Your task to perform on an android device: turn off airplane mode Image 0: 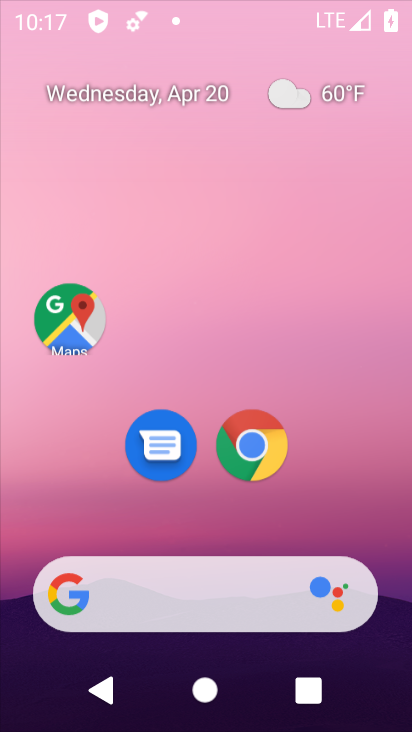
Step 0: click (219, 0)
Your task to perform on an android device: turn off airplane mode Image 1: 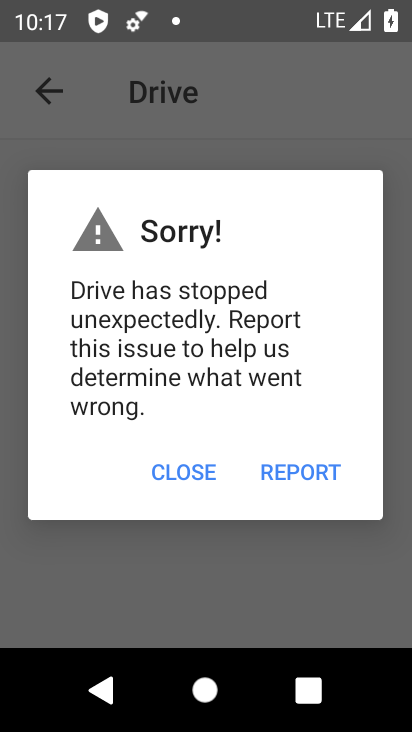
Step 1: press back button
Your task to perform on an android device: turn off airplane mode Image 2: 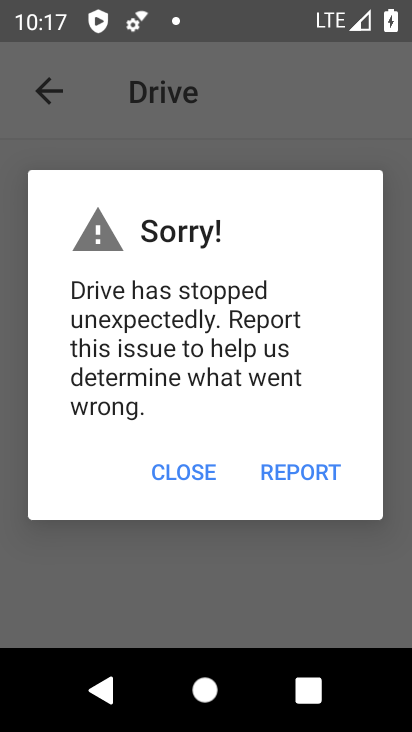
Step 2: press home button
Your task to perform on an android device: turn off airplane mode Image 3: 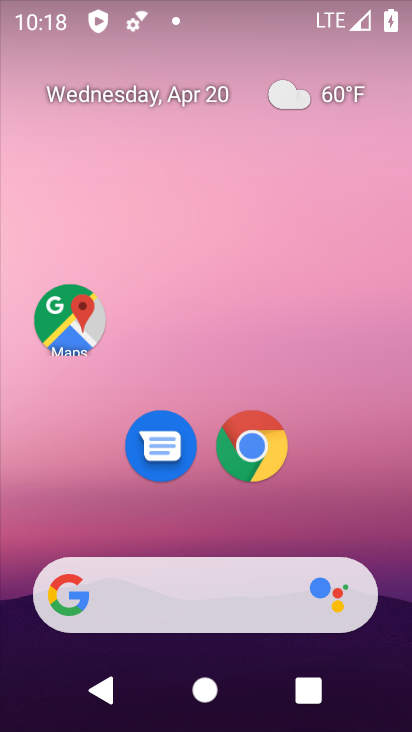
Step 3: drag from (378, 532) to (199, 1)
Your task to perform on an android device: turn off airplane mode Image 4: 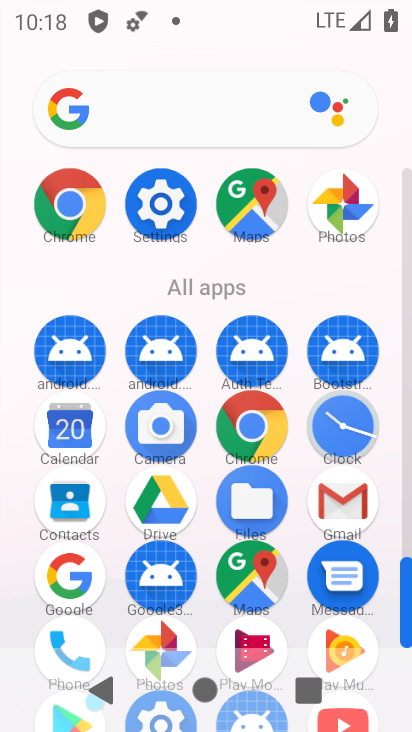
Step 4: drag from (20, 535) to (25, 303)
Your task to perform on an android device: turn off airplane mode Image 5: 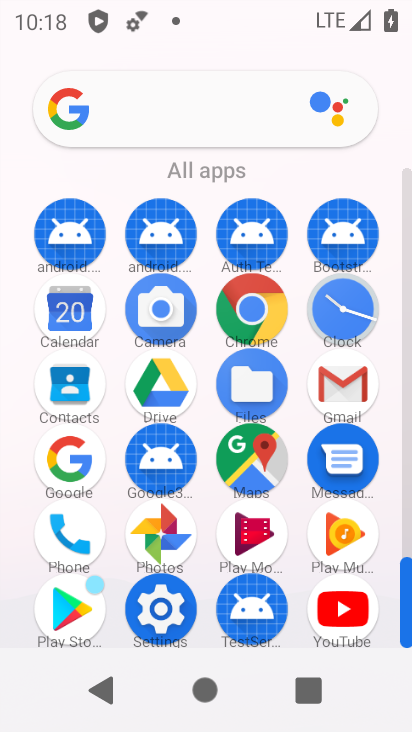
Step 5: click (162, 609)
Your task to perform on an android device: turn off airplane mode Image 6: 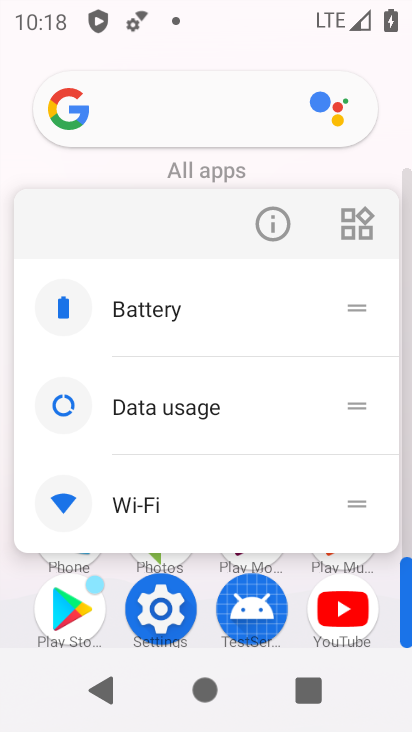
Step 6: click (162, 609)
Your task to perform on an android device: turn off airplane mode Image 7: 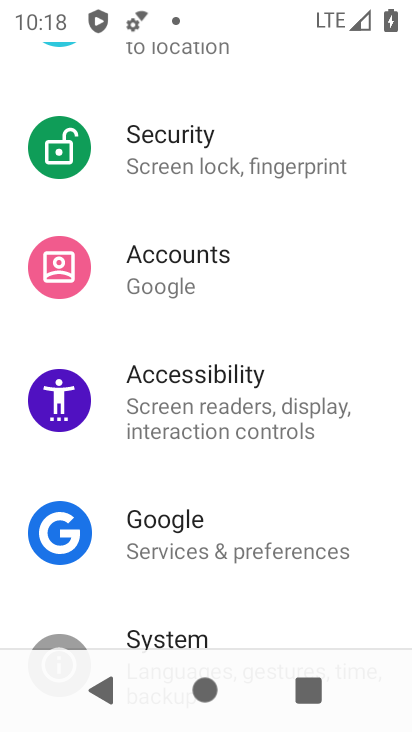
Step 7: drag from (230, 193) to (226, 558)
Your task to perform on an android device: turn off airplane mode Image 8: 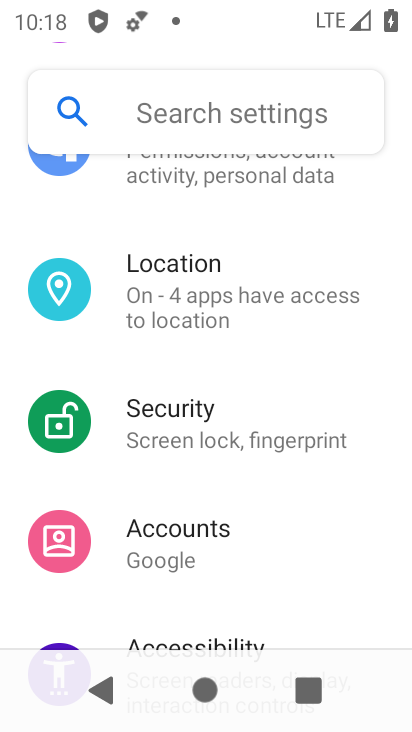
Step 8: drag from (244, 273) to (278, 555)
Your task to perform on an android device: turn off airplane mode Image 9: 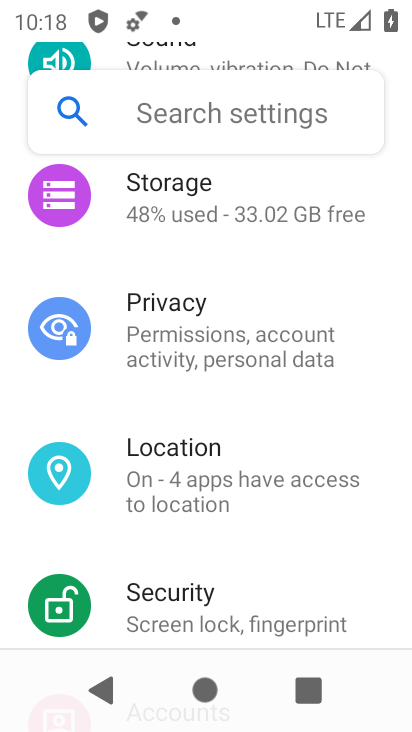
Step 9: drag from (257, 191) to (267, 542)
Your task to perform on an android device: turn off airplane mode Image 10: 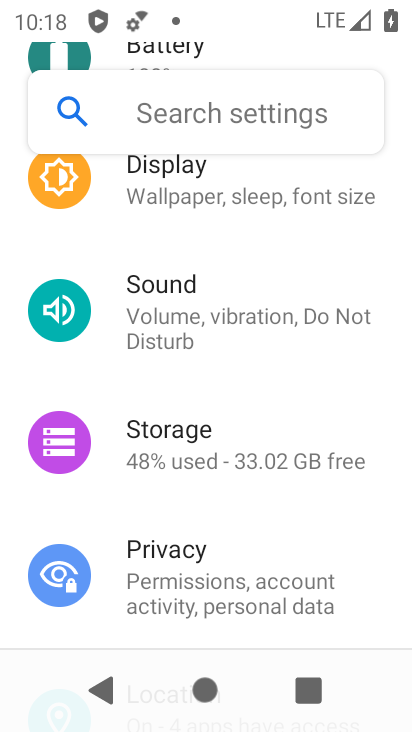
Step 10: drag from (263, 227) to (289, 547)
Your task to perform on an android device: turn off airplane mode Image 11: 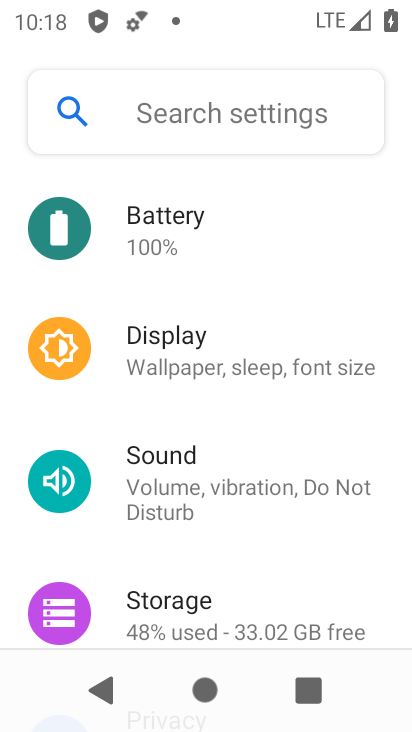
Step 11: drag from (239, 221) to (236, 527)
Your task to perform on an android device: turn off airplane mode Image 12: 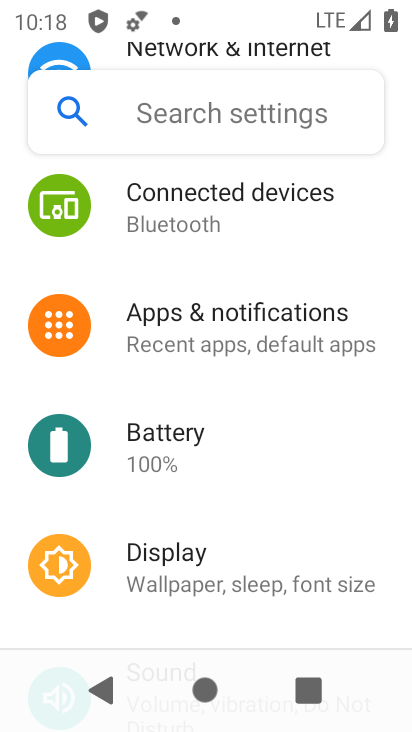
Step 12: drag from (231, 261) to (236, 525)
Your task to perform on an android device: turn off airplane mode Image 13: 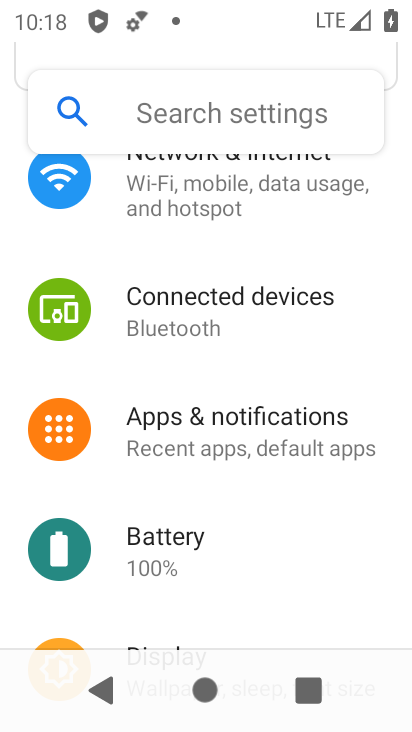
Step 13: drag from (217, 237) to (222, 543)
Your task to perform on an android device: turn off airplane mode Image 14: 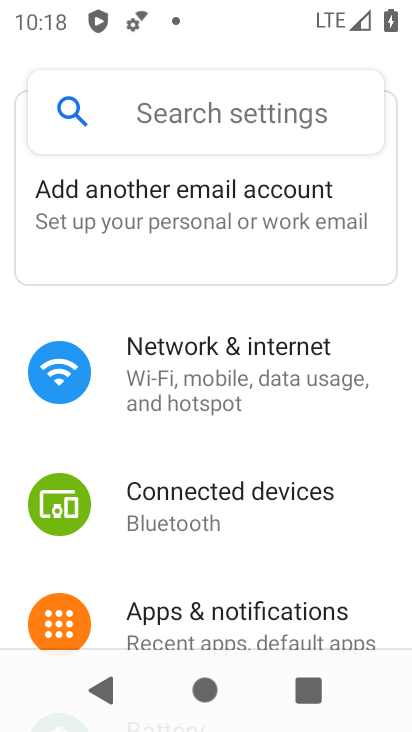
Step 14: drag from (275, 511) to (261, 202)
Your task to perform on an android device: turn off airplane mode Image 15: 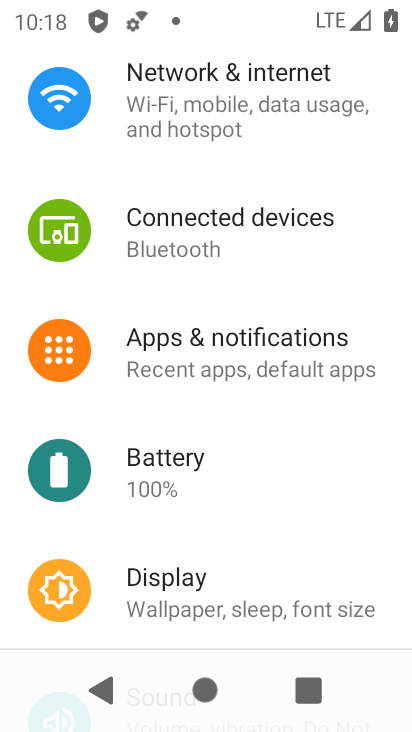
Step 15: drag from (286, 653) to (270, 299)
Your task to perform on an android device: turn off airplane mode Image 16: 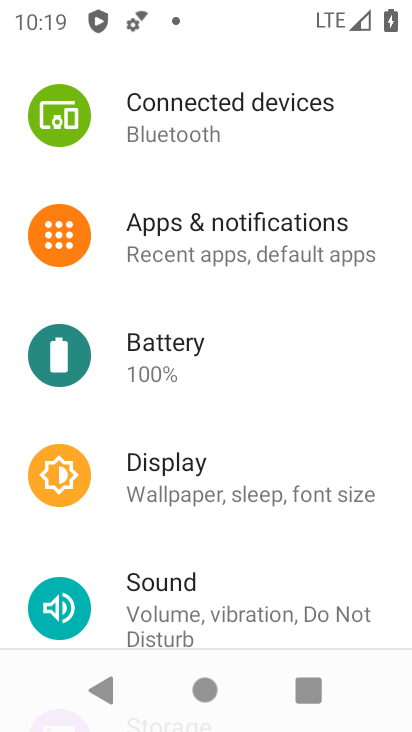
Step 16: drag from (293, 254) to (284, 586)
Your task to perform on an android device: turn off airplane mode Image 17: 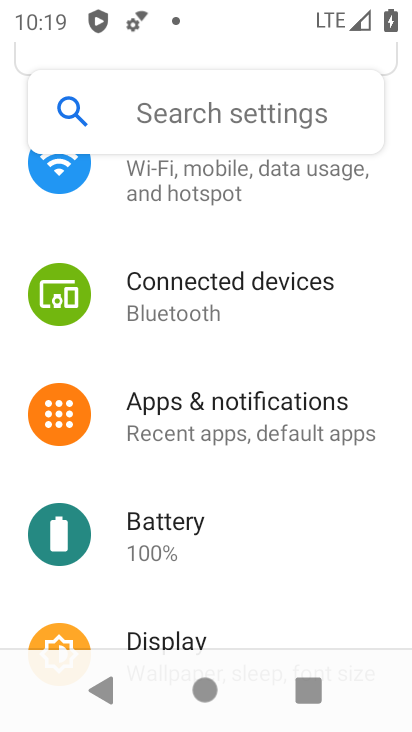
Step 17: drag from (277, 286) to (291, 558)
Your task to perform on an android device: turn off airplane mode Image 18: 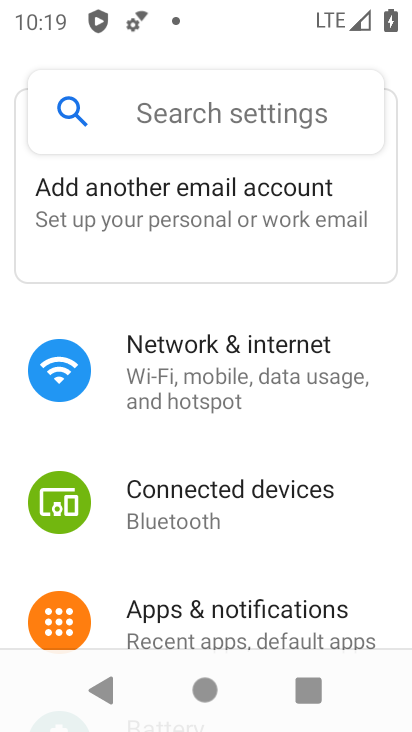
Step 18: click (288, 376)
Your task to perform on an android device: turn off airplane mode Image 19: 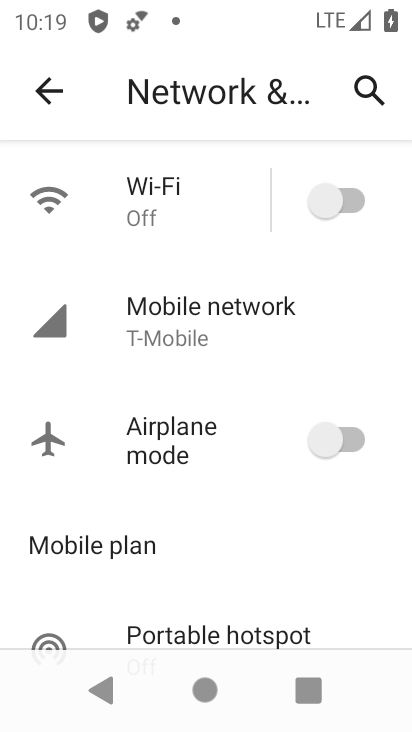
Step 19: task complete